Your task to perform on an android device: Go to Google Image 0: 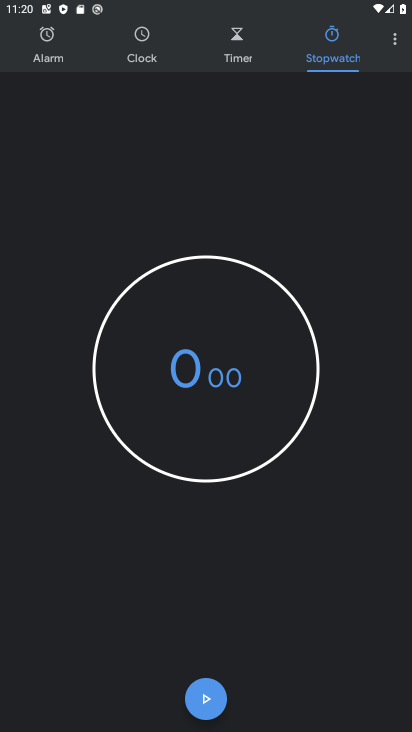
Step 0: press home button
Your task to perform on an android device: Go to Google Image 1: 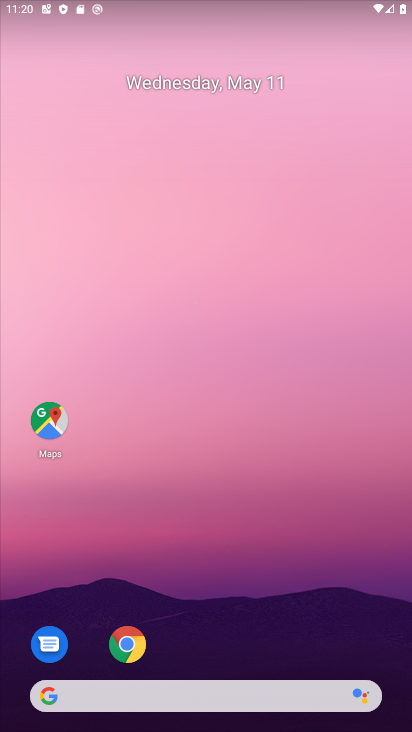
Step 1: drag from (278, 637) to (239, 31)
Your task to perform on an android device: Go to Google Image 2: 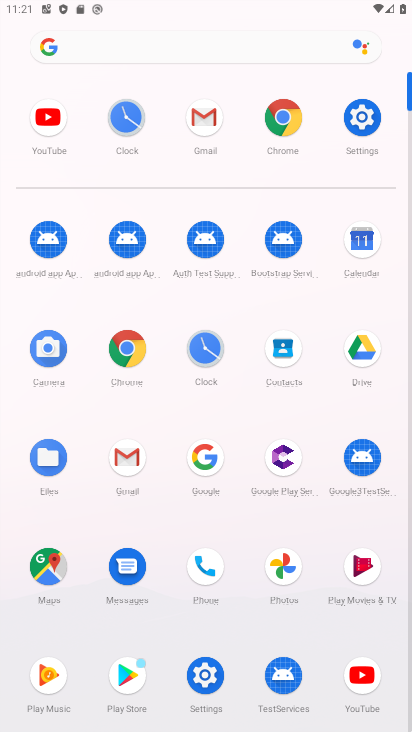
Step 2: click (291, 112)
Your task to perform on an android device: Go to Google Image 3: 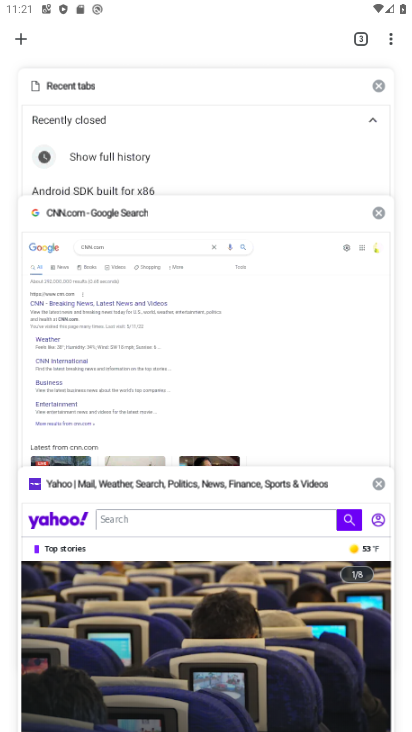
Step 3: click (7, 40)
Your task to perform on an android device: Go to Google Image 4: 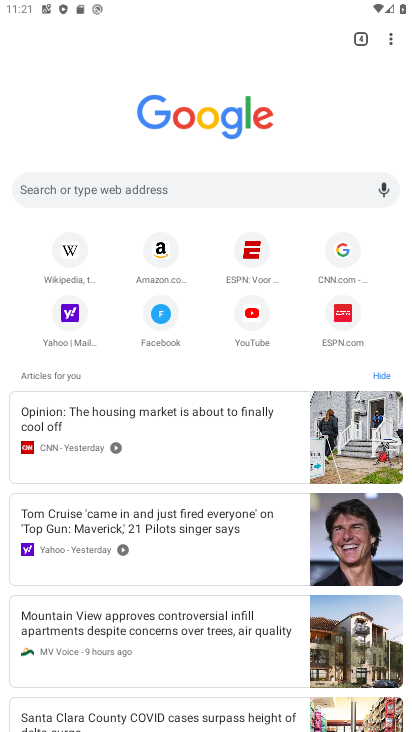
Step 4: click (134, 185)
Your task to perform on an android device: Go to Google Image 5: 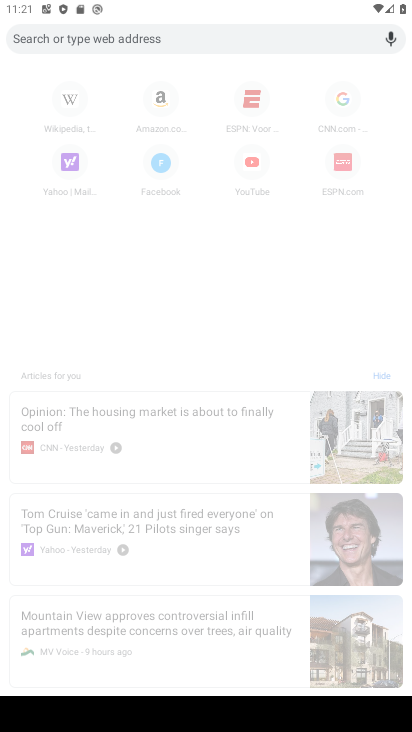
Step 5: task complete